Your task to perform on an android device: add a label to a message in the gmail app Image 0: 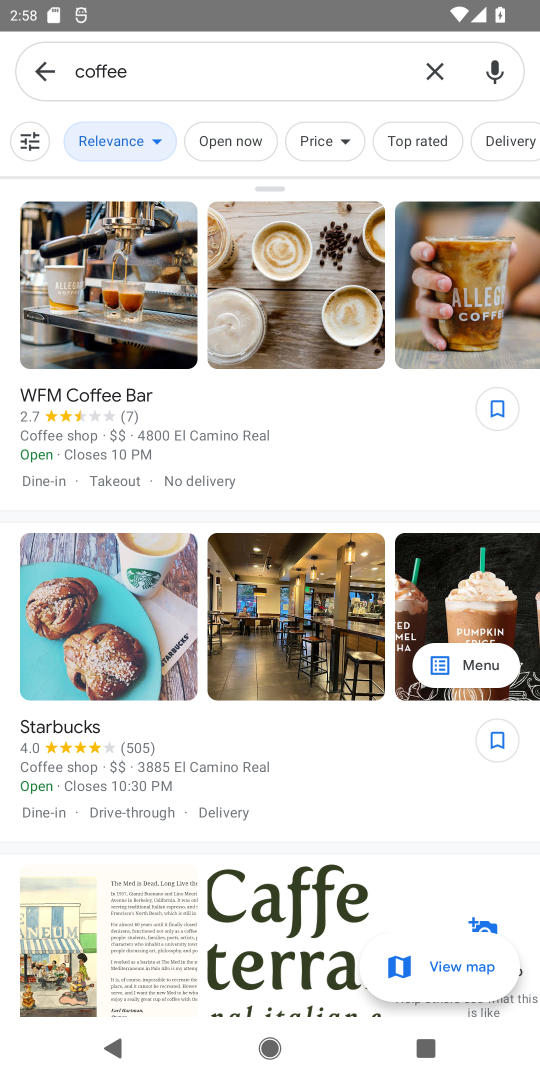
Step 0: press home button
Your task to perform on an android device: add a label to a message in the gmail app Image 1: 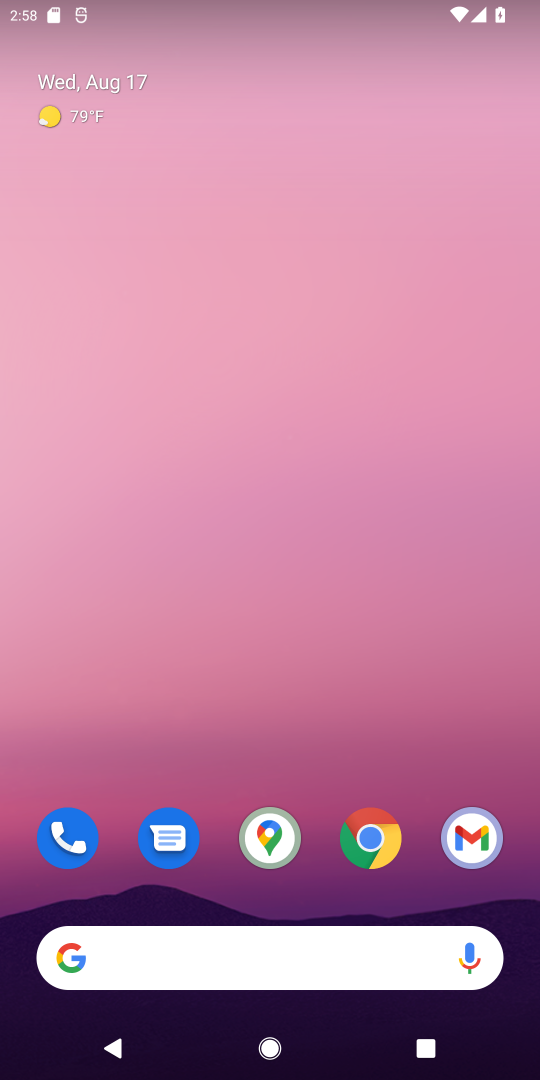
Step 1: click (463, 833)
Your task to perform on an android device: add a label to a message in the gmail app Image 2: 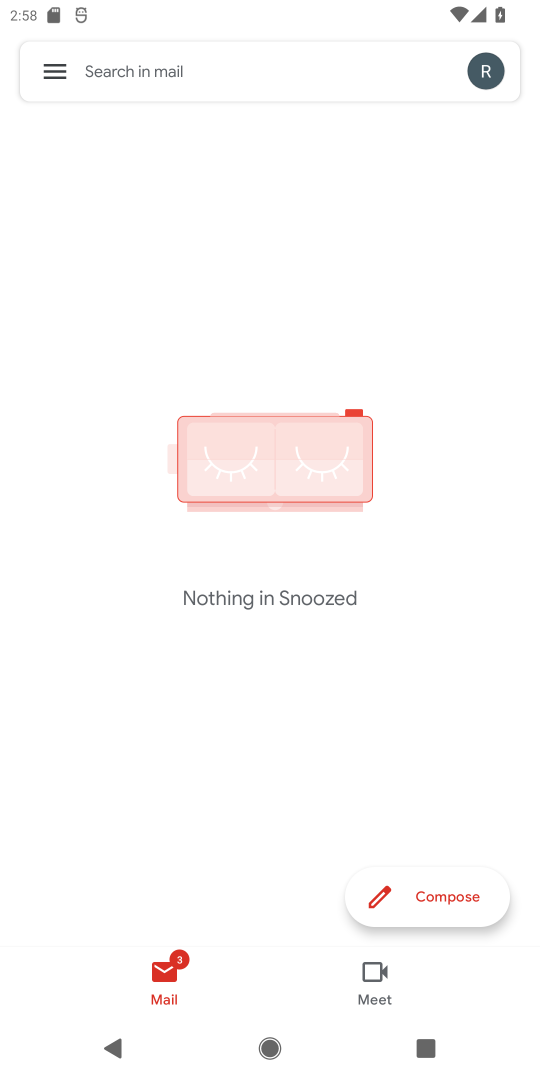
Step 2: click (50, 71)
Your task to perform on an android device: add a label to a message in the gmail app Image 3: 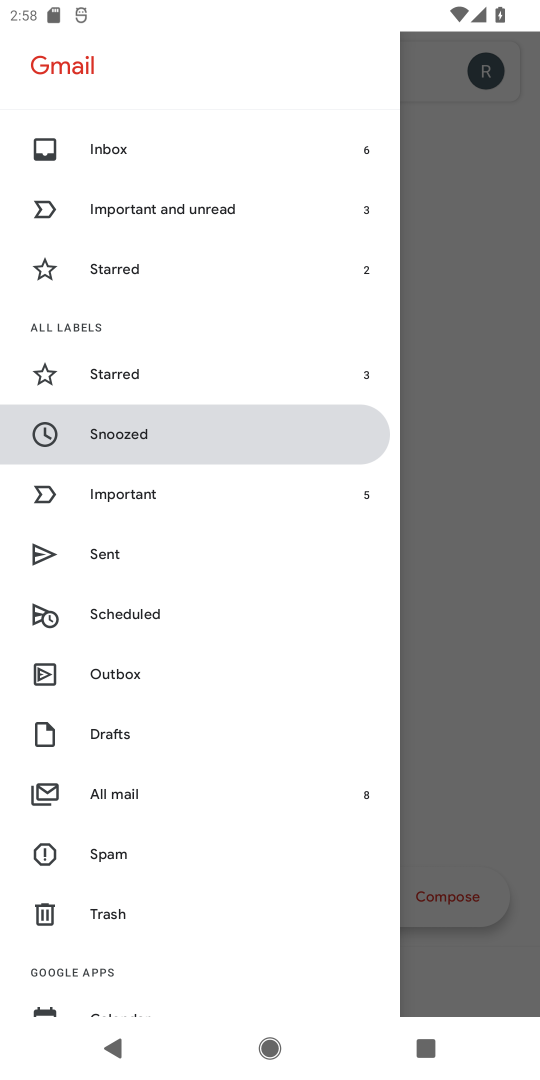
Step 3: click (126, 149)
Your task to perform on an android device: add a label to a message in the gmail app Image 4: 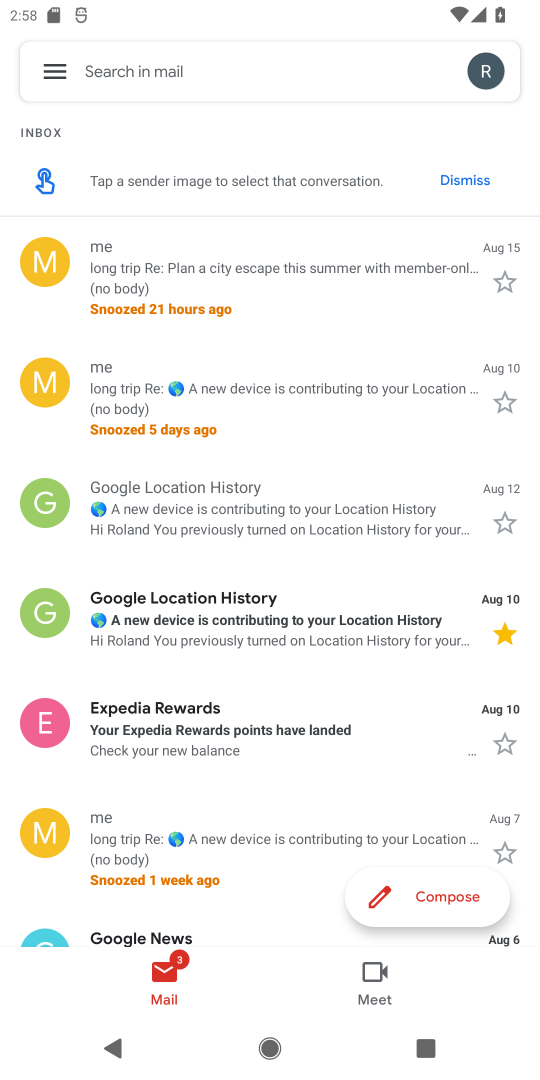
Step 4: click (210, 613)
Your task to perform on an android device: add a label to a message in the gmail app Image 5: 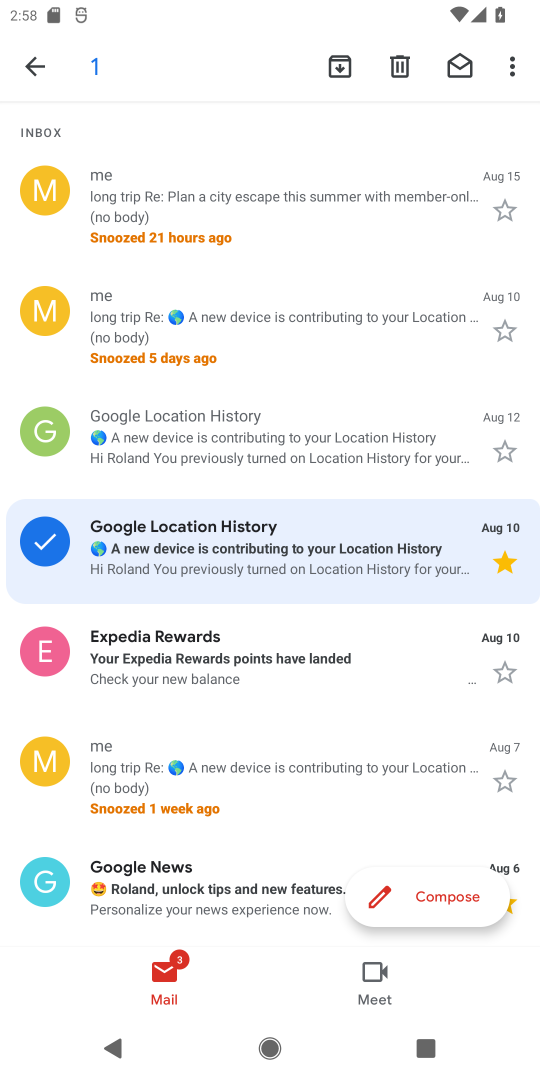
Step 5: click (510, 65)
Your task to perform on an android device: add a label to a message in the gmail app Image 6: 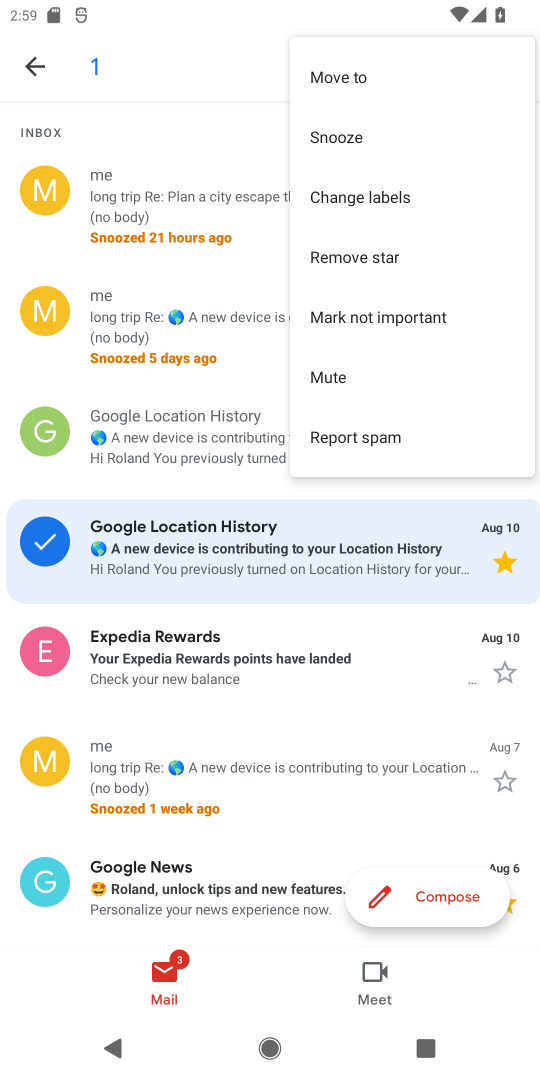
Step 6: click (343, 192)
Your task to perform on an android device: add a label to a message in the gmail app Image 7: 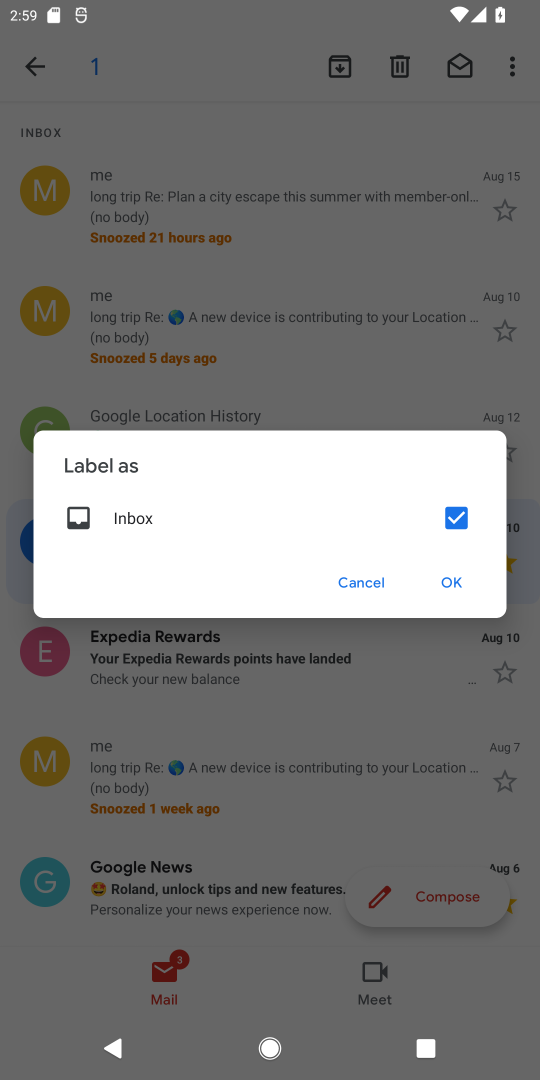
Step 7: click (446, 566)
Your task to perform on an android device: add a label to a message in the gmail app Image 8: 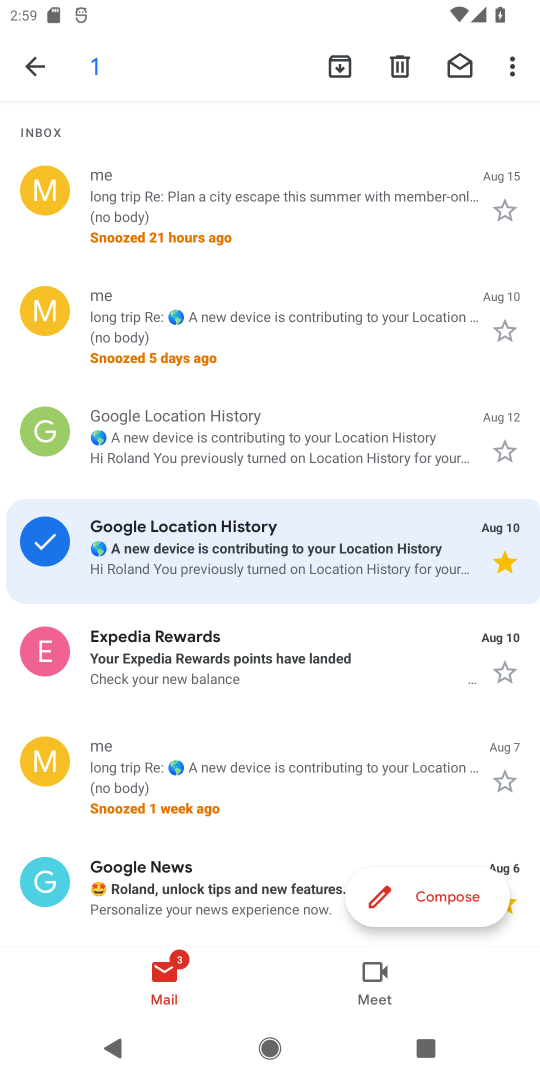
Step 8: task complete